Your task to perform on an android device: see tabs open on other devices in the chrome app Image 0: 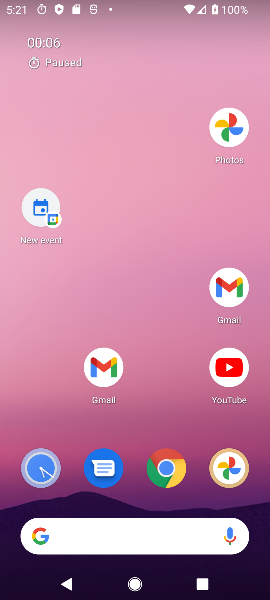
Step 0: drag from (97, 223) to (96, 146)
Your task to perform on an android device: see tabs open on other devices in the chrome app Image 1: 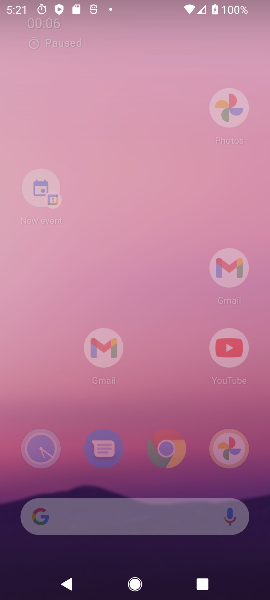
Step 1: drag from (167, 488) to (189, 210)
Your task to perform on an android device: see tabs open on other devices in the chrome app Image 2: 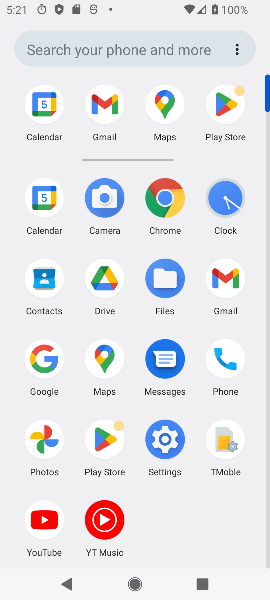
Step 2: drag from (183, 429) to (153, 168)
Your task to perform on an android device: see tabs open on other devices in the chrome app Image 3: 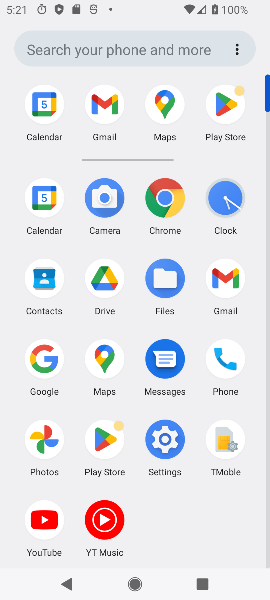
Step 3: click (157, 204)
Your task to perform on an android device: see tabs open on other devices in the chrome app Image 4: 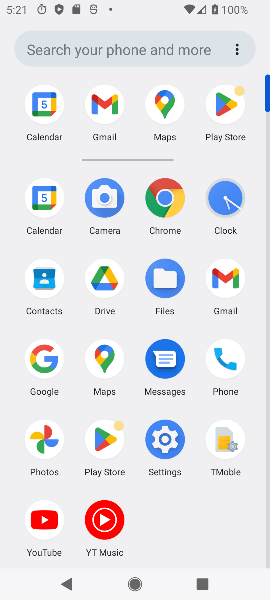
Step 4: click (159, 197)
Your task to perform on an android device: see tabs open on other devices in the chrome app Image 5: 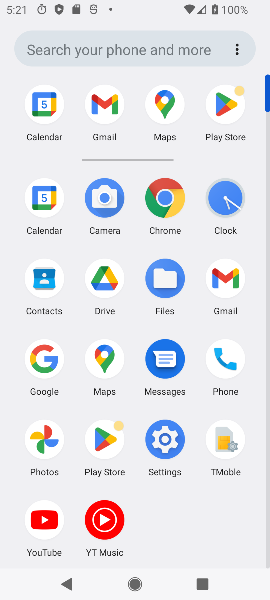
Step 5: click (159, 199)
Your task to perform on an android device: see tabs open on other devices in the chrome app Image 6: 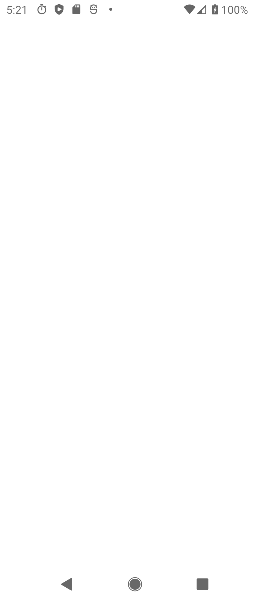
Step 6: click (171, 194)
Your task to perform on an android device: see tabs open on other devices in the chrome app Image 7: 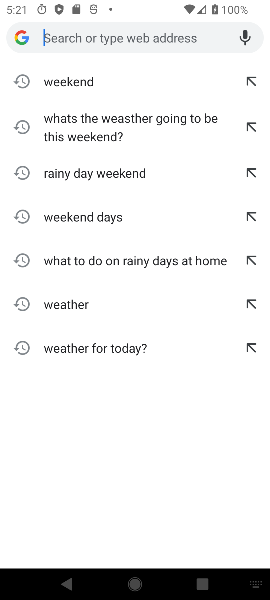
Step 7: press back button
Your task to perform on an android device: see tabs open on other devices in the chrome app Image 8: 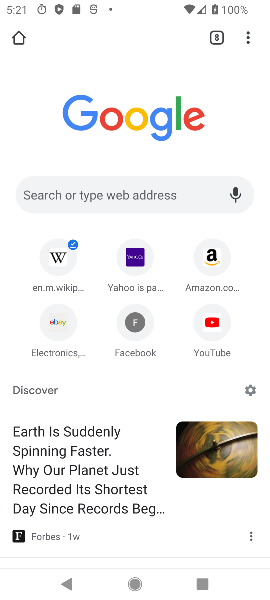
Step 8: drag from (207, 279) to (206, 394)
Your task to perform on an android device: see tabs open on other devices in the chrome app Image 9: 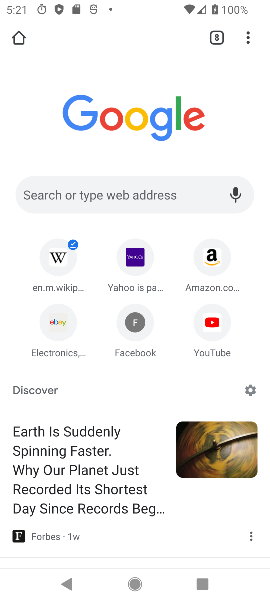
Step 9: drag from (243, 35) to (122, 319)
Your task to perform on an android device: see tabs open on other devices in the chrome app Image 10: 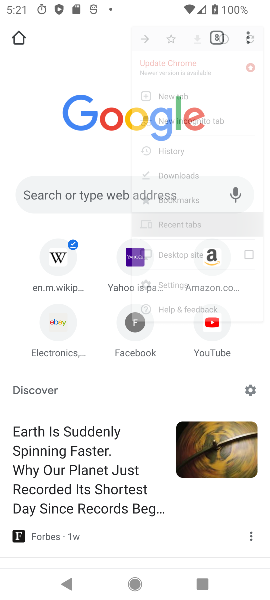
Step 10: click (122, 319)
Your task to perform on an android device: see tabs open on other devices in the chrome app Image 11: 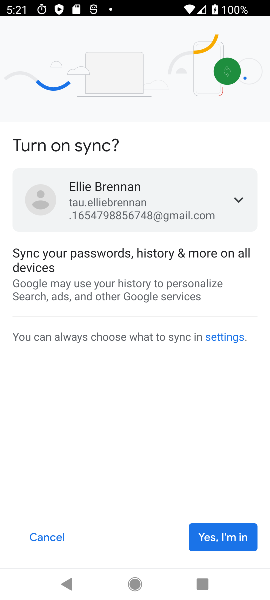
Step 11: task complete